Your task to perform on an android device: Turn off the flashlight Image 0: 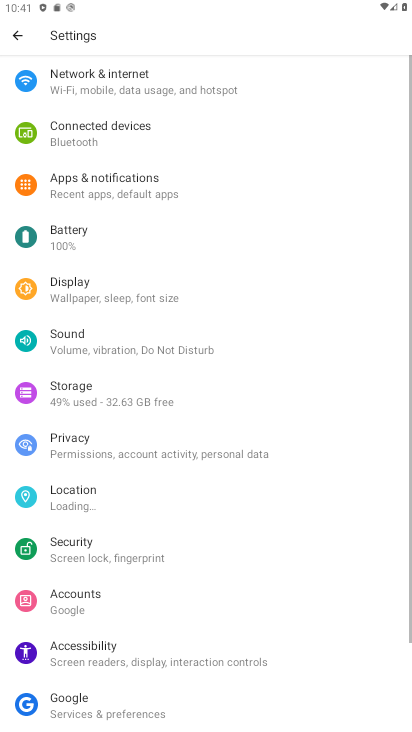
Step 0: press home button
Your task to perform on an android device: Turn off the flashlight Image 1: 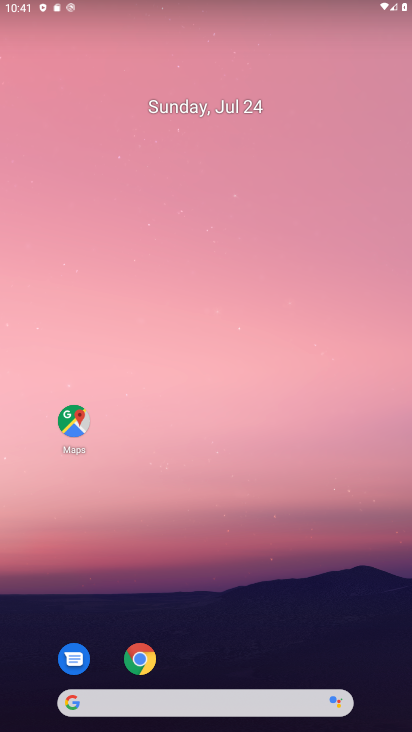
Step 1: task complete